Your task to perform on an android device: turn notification dots off Image 0: 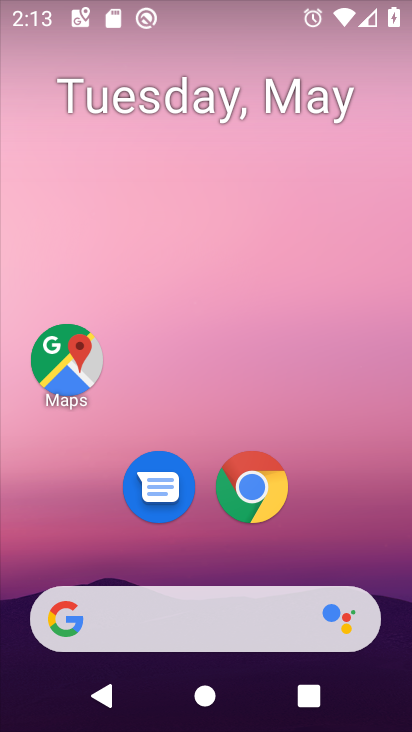
Step 0: drag from (84, 363) to (203, 91)
Your task to perform on an android device: turn notification dots off Image 1: 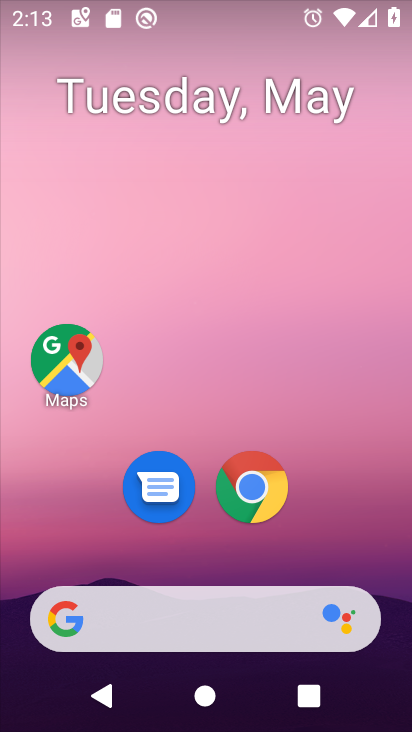
Step 1: drag from (57, 470) to (275, 56)
Your task to perform on an android device: turn notification dots off Image 2: 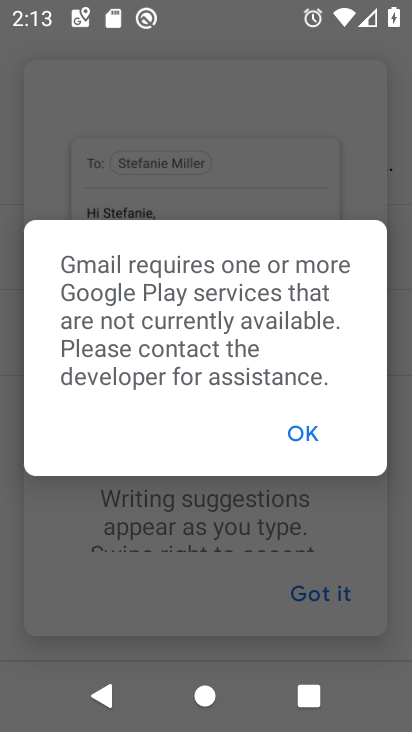
Step 2: press back button
Your task to perform on an android device: turn notification dots off Image 3: 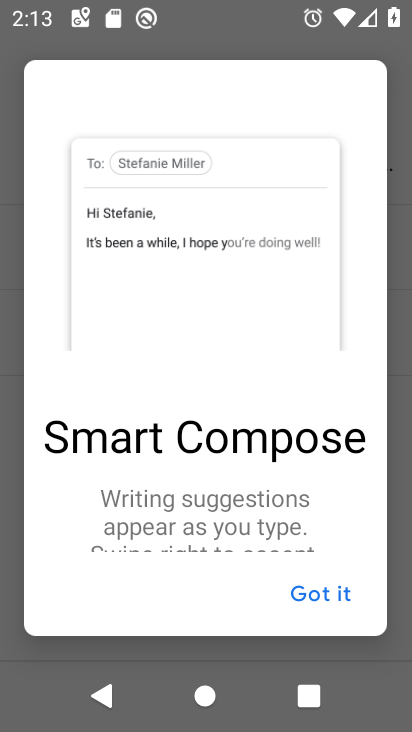
Step 3: click (333, 606)
Your task to perform on an android device: turn notification dots off Image 4: 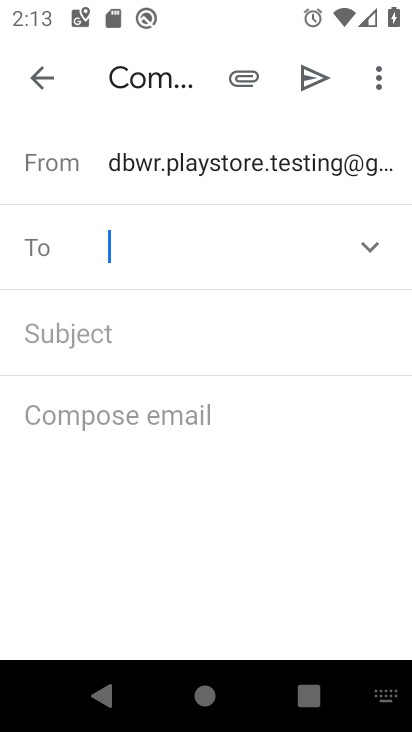
Step 4: press home button
Your task to perform on an android device: turn notification dots off Image 5: 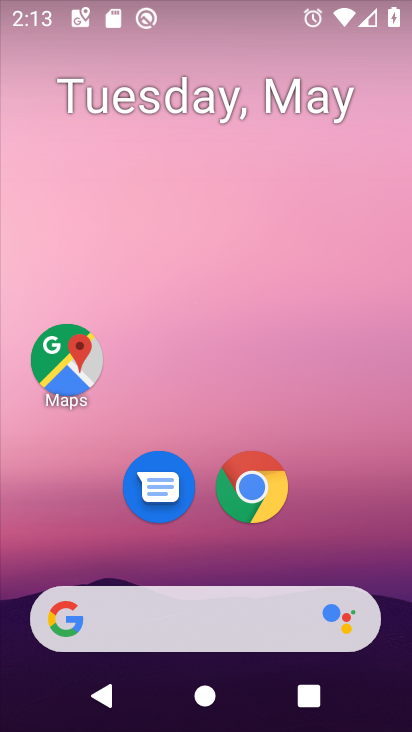
Step 5: drag from (63, 466) to (304, 49)
Your task to perform on an android device: turn notification dots off Image 6: 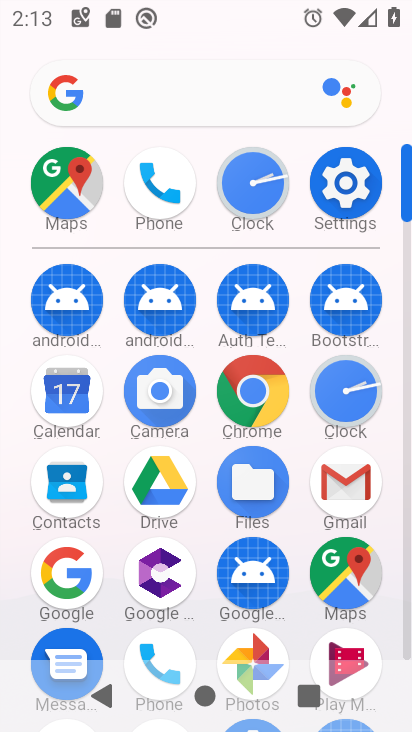
Step 6: click (344, 182)
Your task to perform on an android device: turn notification dots off Image 7: 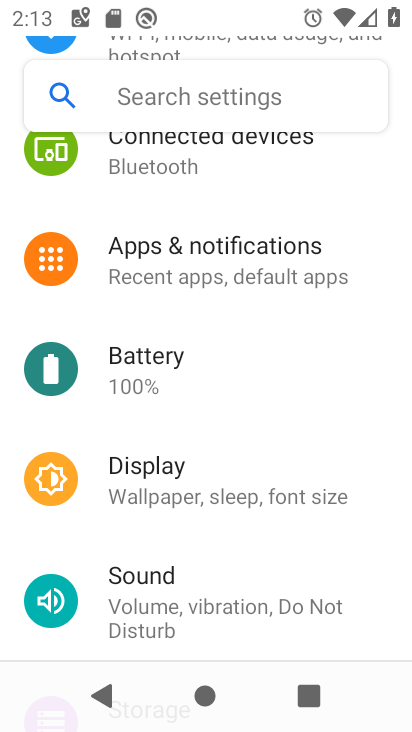
Step 7: click (165, 249)
Your task to perform on an android device: turn notification dots off Image 8: 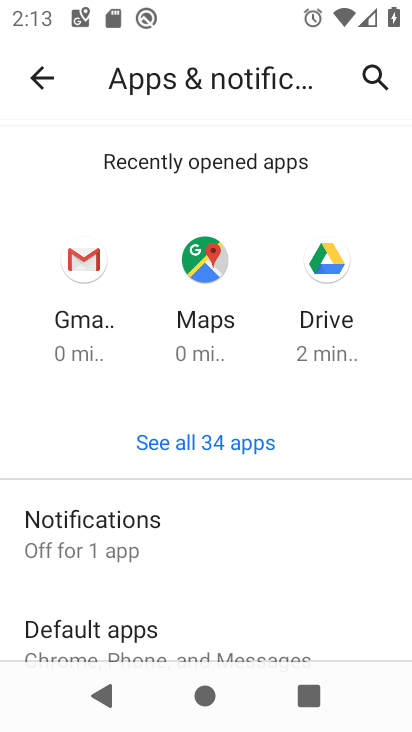
Step 8: click (37, 511)
Your task to perform on an android device: turn notification dots off Image 9: 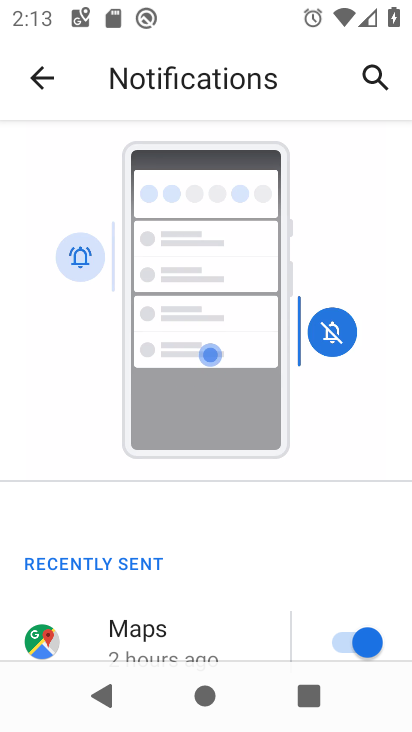
Step 9: drag from (10, 504) to (229, 130)
Your task to perform on an android device: turn notification dots off Image 10: 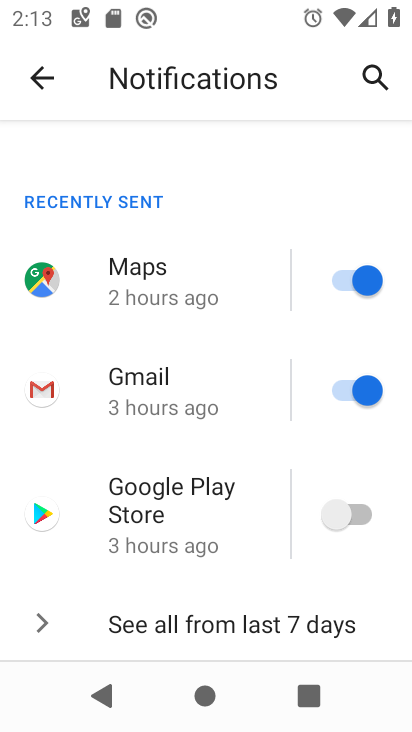
Step 10: drag from (18, 522) to (259, 173)
Your task to perform on an android device: turn notification dots off Image 11: 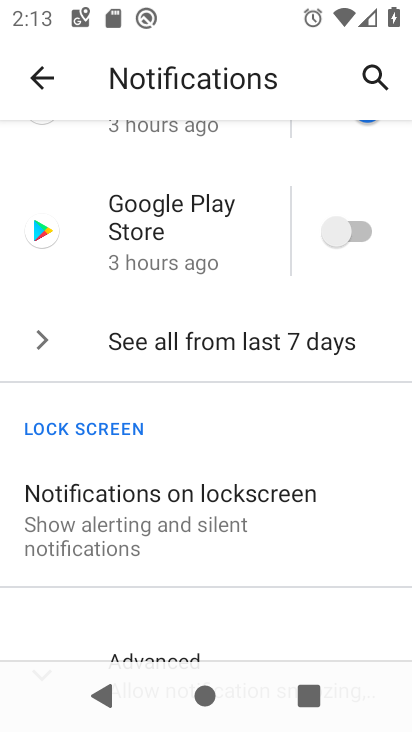
Step 11: drag from (45, 535) to (239, 232)
Your task to perform on an android device: turn notification dots off Image 12: 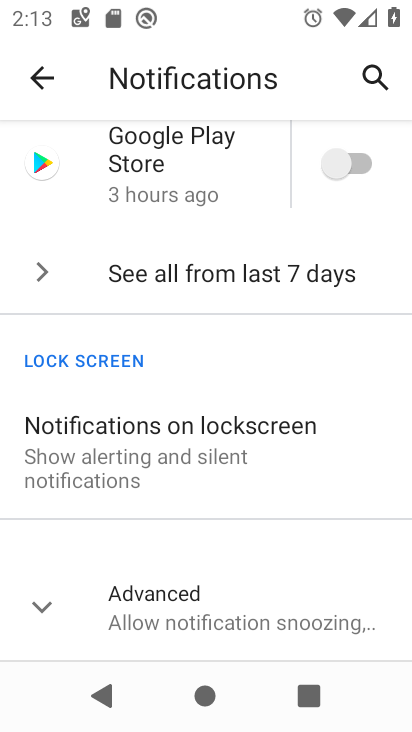
Step 12: click (103, 618)
Your task to perform on an android device: turn notification dots off Image 13: 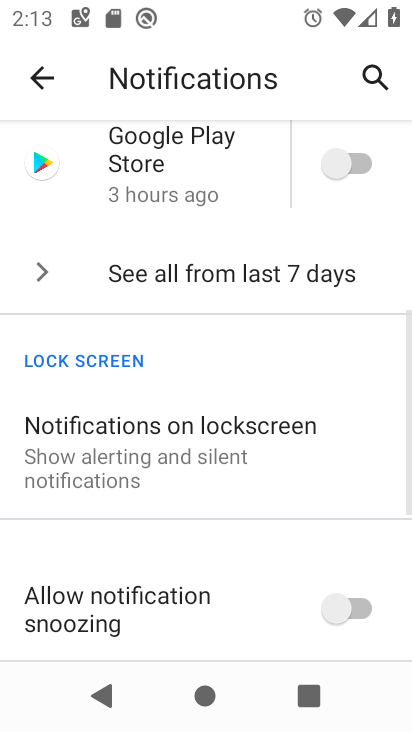
Step 13: drag from (11, 609) to (243, 209)
Your task to perform on an android device: turn notification dots off Image 14: 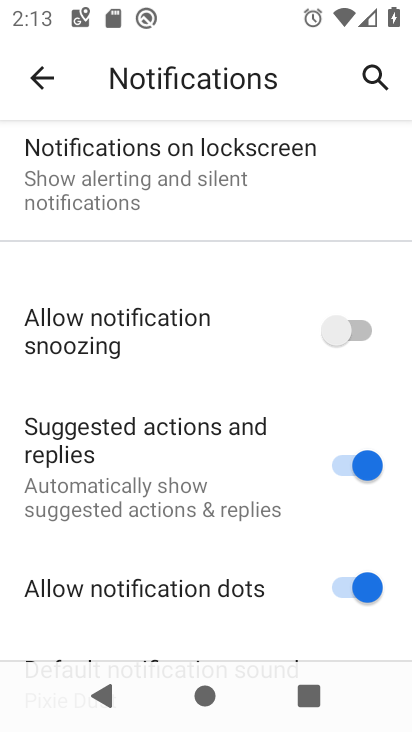
Step 14: click (358, 588)
Your task to perform on an android device: turn notification dots off Image 15: 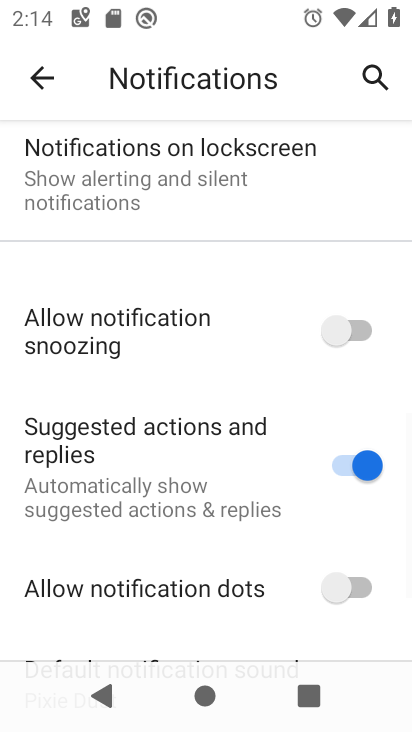
Step 15: task complete